Your task to perform on an android device: allow cookies in the chrome app Image 0: 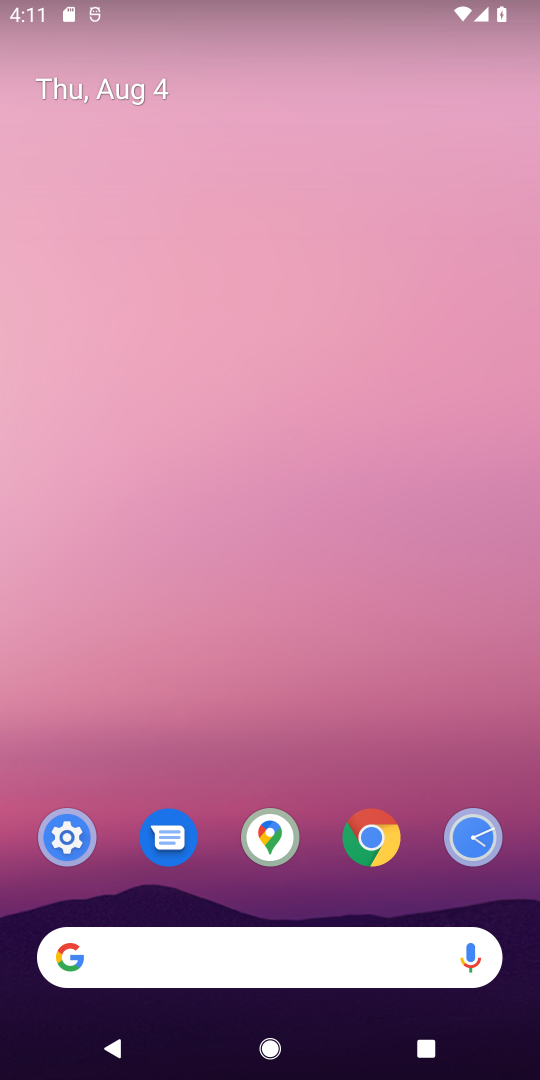
Step 0: press home button
Your task to perform on an android device: allow cookies in the chrome app Image 1: 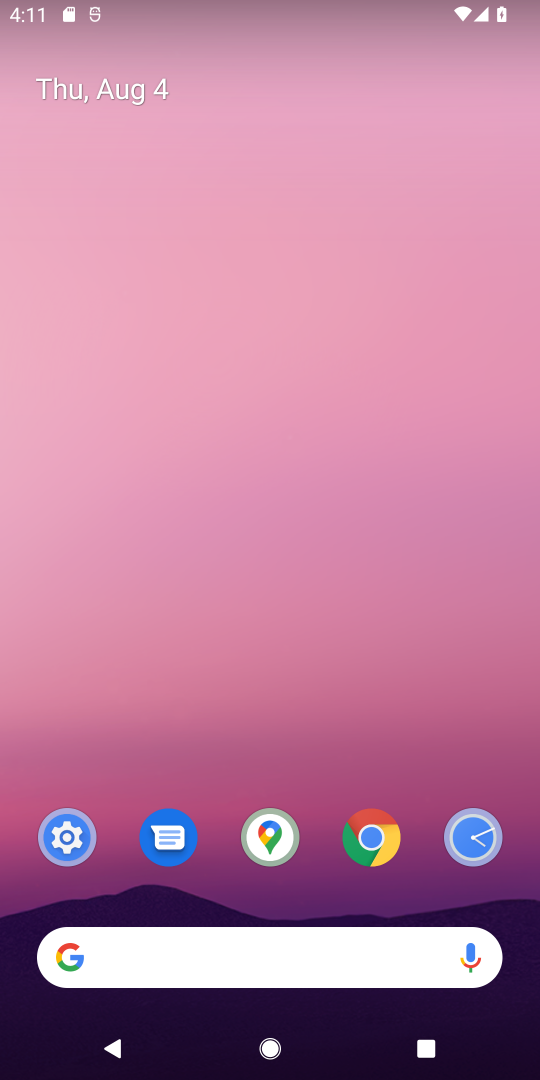
Step 1: click (376, 822)
Your task to perform on an android device: allow cookies in the chrome app Image 2: 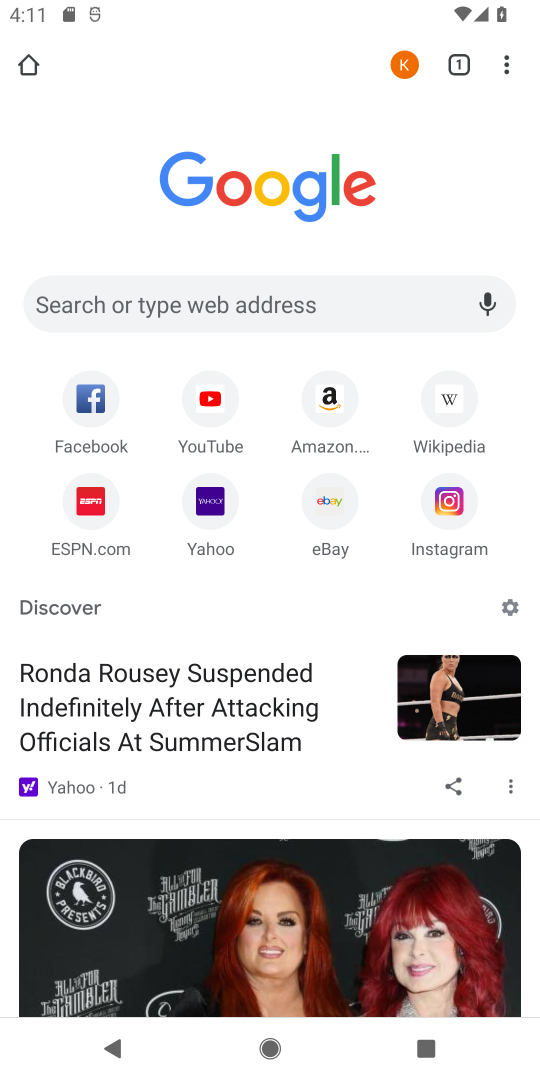
Step 2: click (502, 60)
Your task to perform on an android device: allow cookies in the chrome app Image 3: 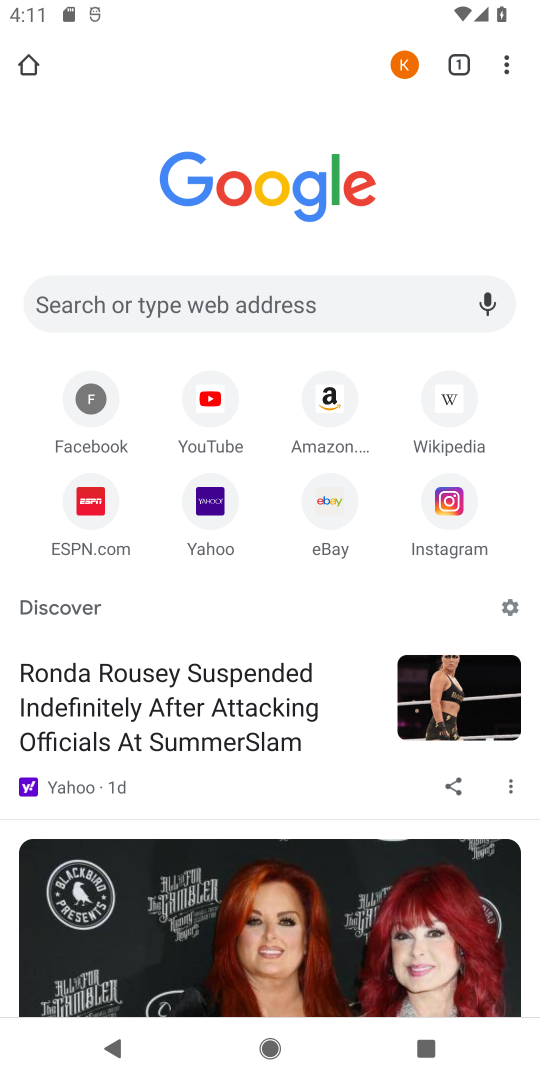
Step 3: click (506, 58)
Your task to perform on an android device: allow cookies in the chrome app Image 4: 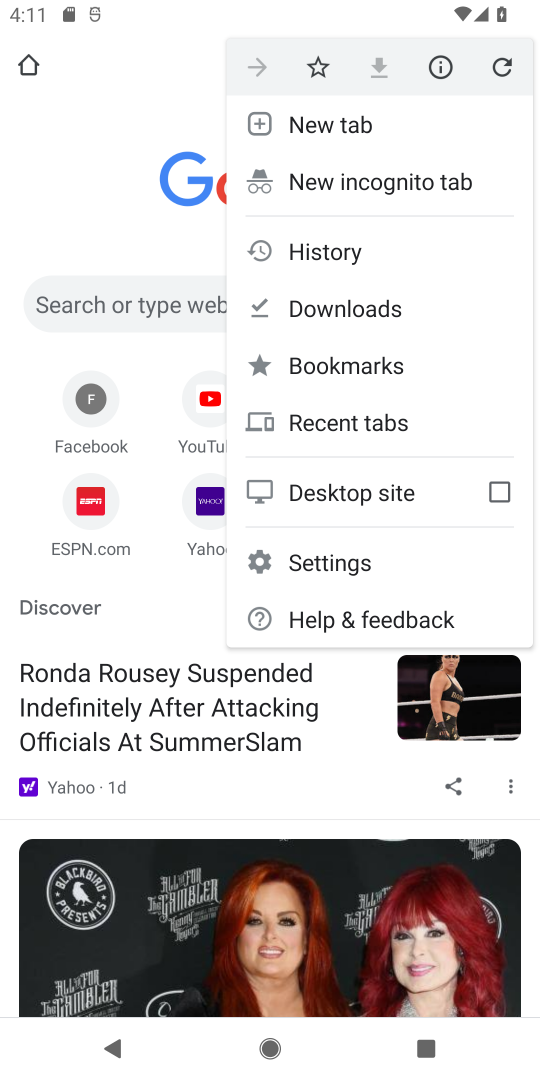
Step 4: click (347, 556)
Your task to perform on an android device: allow cookies in the chrome app Image 5: 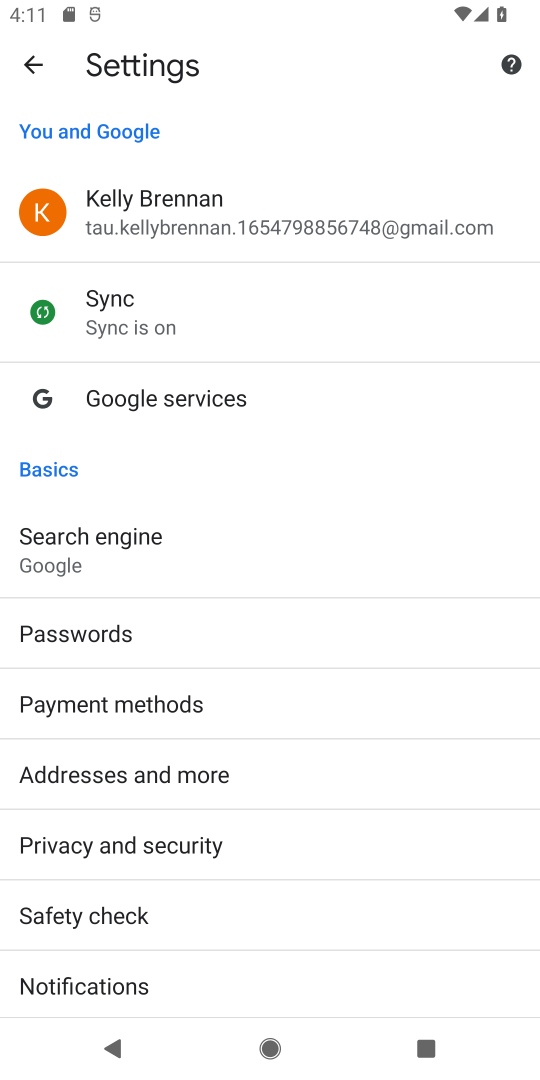
Step 5: drag from (277, 947) to (302, 177)
Your task to perform on an android device: allow cookies in the chrome app Image 6: 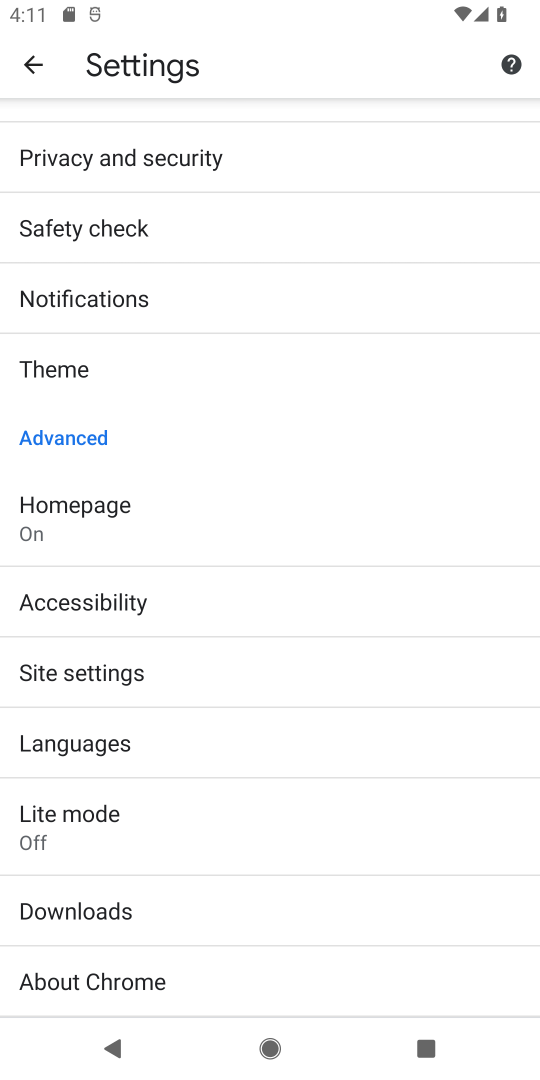
Step 6: click (152, 672)
Your task to perform on an android device: allow cookies in the chrome app Image 7: 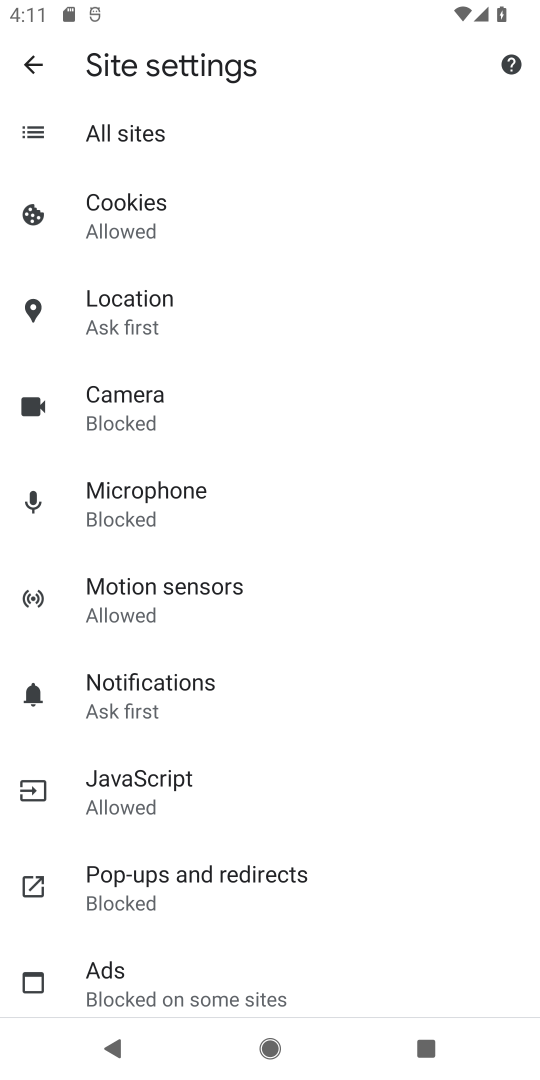
Step 7: click (200, 201)
Your task to perform on an android device: allow cookies in the chrome app Image 8: 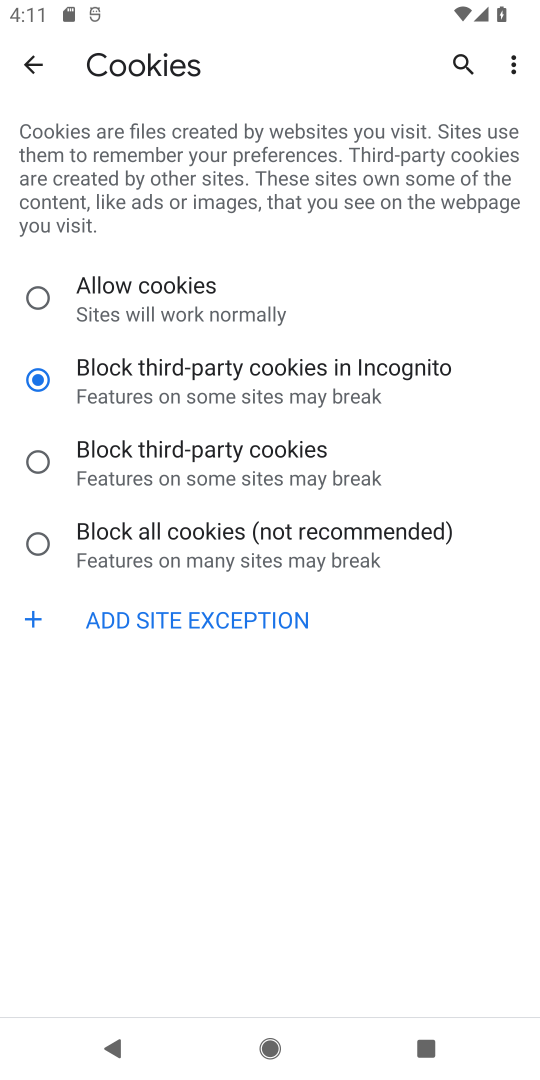
Step 8: click (27, 291)
Your task to perform on an android device: allow cookies in the chrome app Image 9: 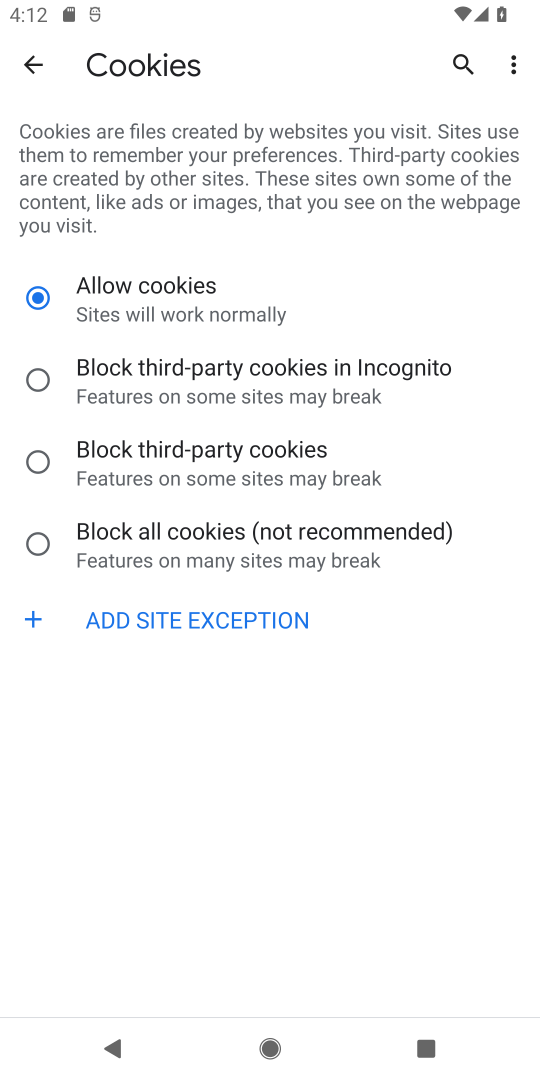
Step 9: task complete